Your task to perform on an android device: Go to ESPN.com Image 0: 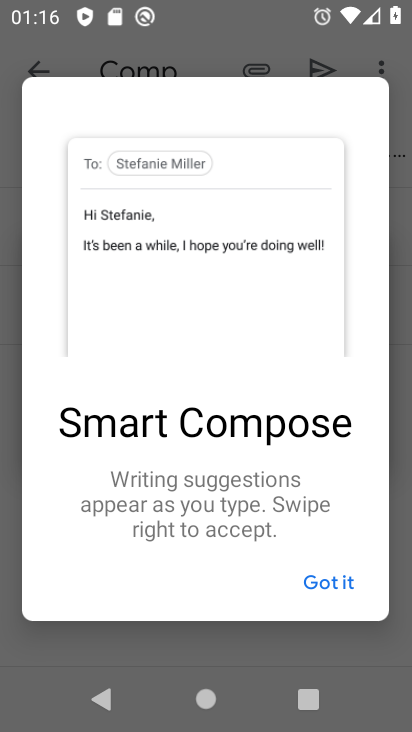
Step 0: press home button
Your task to perform on an android device: Go to ESPN.com Image 1: 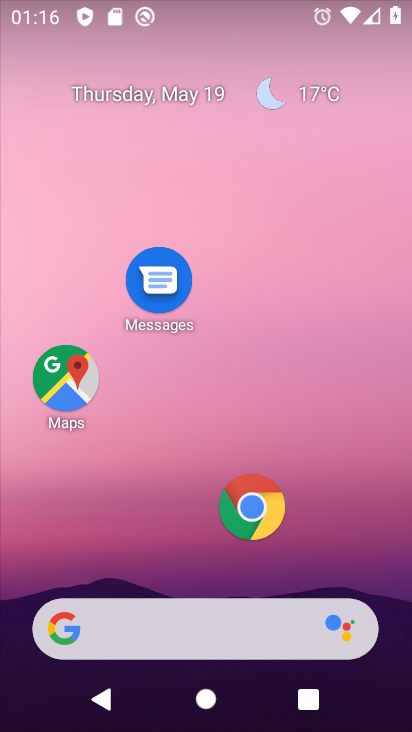
Step 1: drag from (131, 578) to (194, 274)
Your task to perform on an android device: Go to ESPN.com Image 2: 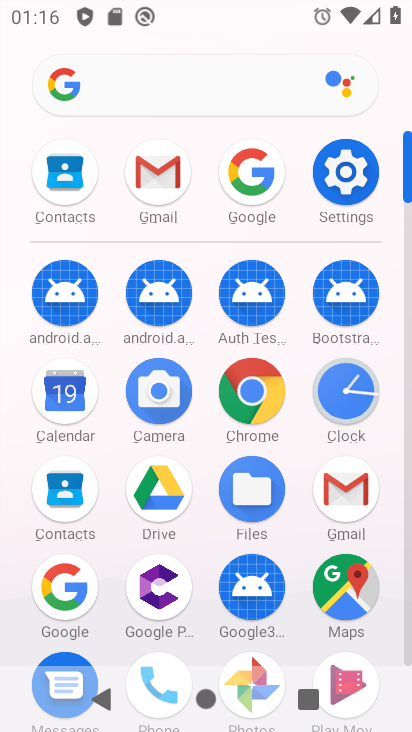
Step 2: click (256, 388)
Your task to perform on an android device: Go to ESPN.com Image 3: 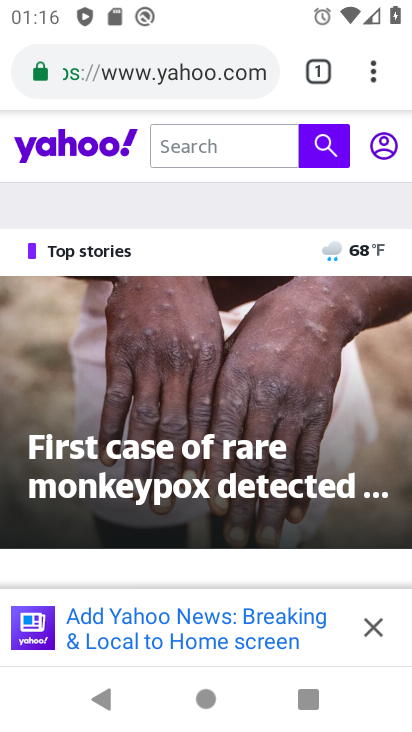
Step 3: click (328, 71)
Your task to perform on an android device: Go to ESPN.com Image 4: 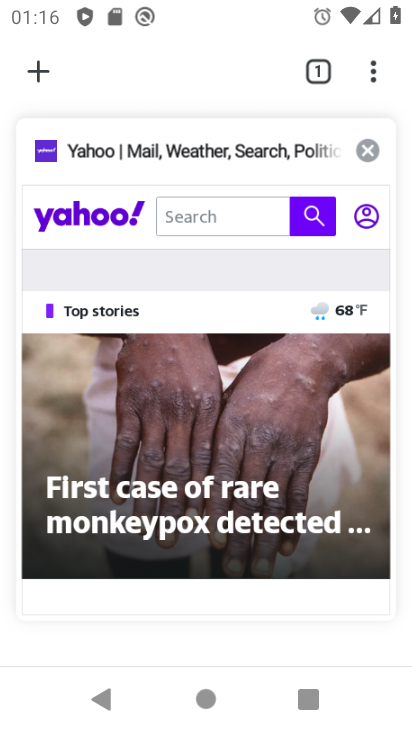
Step 4: click (371, 152)
Your task to perform on an android device: Go to ESPN.com Image 5: 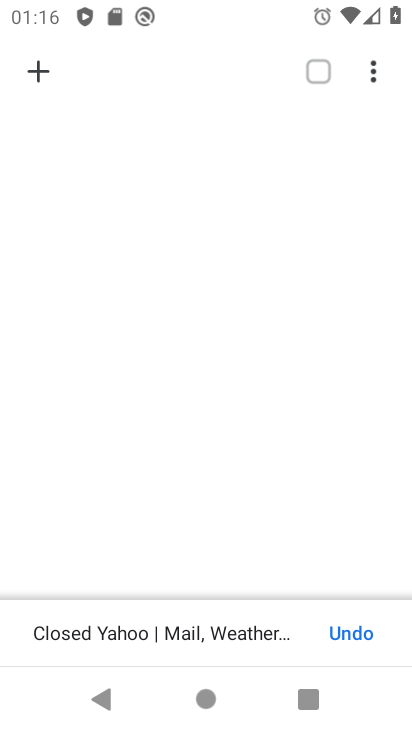
Step 5: click (45, 69)
Your task to perform on an android device: Go to ESPN.com Image 6: 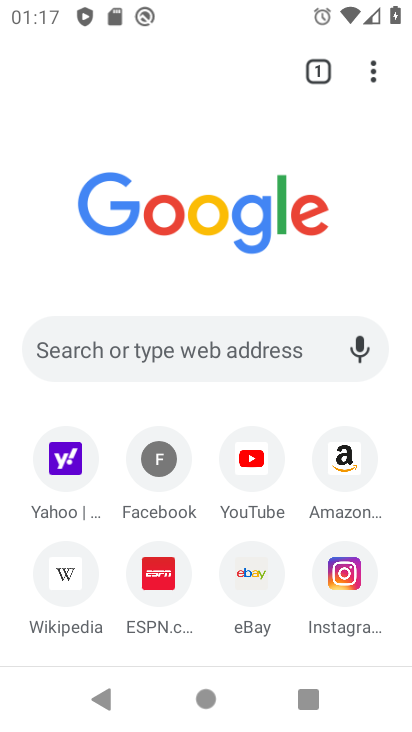
Step 6: click (158, 582)
Your task to perform on an android device: Go to ESPN.com Image 7: 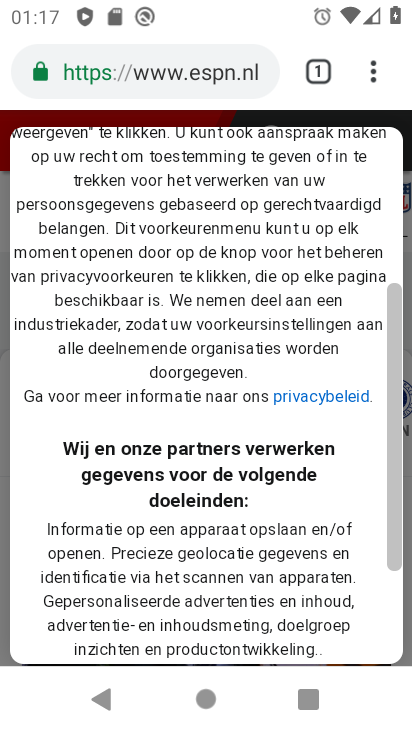
Step 7: task complete